Your task to perform on an android device: install app "eBay: The shopping marketplace" Image 0: 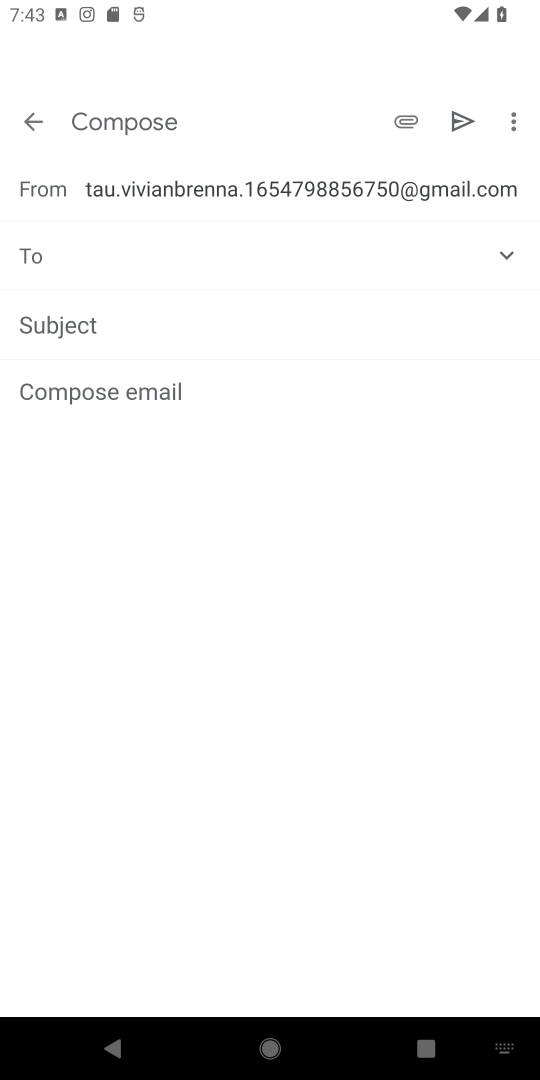
Step 0: press home button
Your task to perform on an android device: install app "eBay: The shopping marketplace" Image 1: 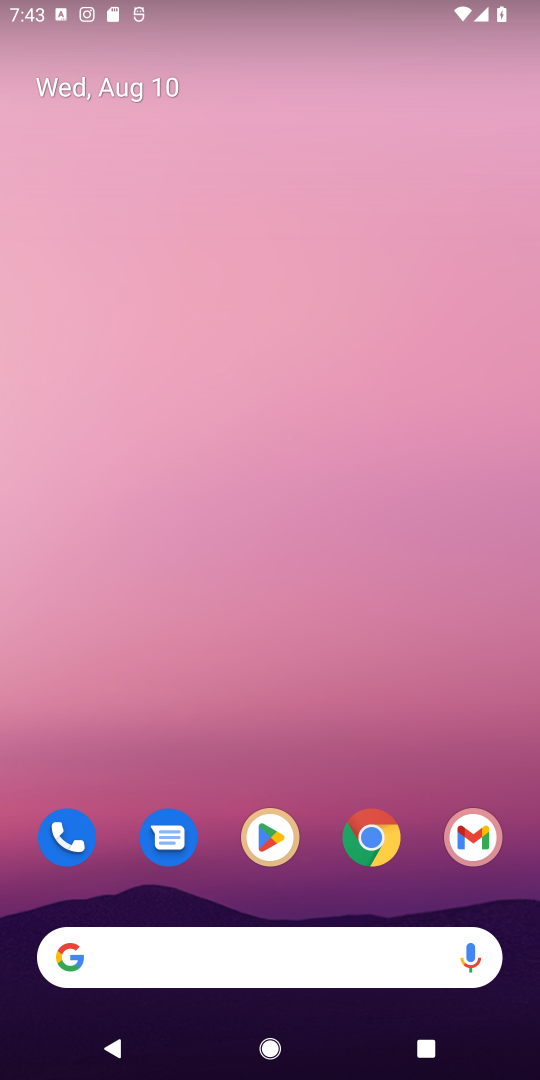
Step 1: click (277, 841)
Your task to perform on an android device: install app "eBay: The shopping marketplace" Image 2: 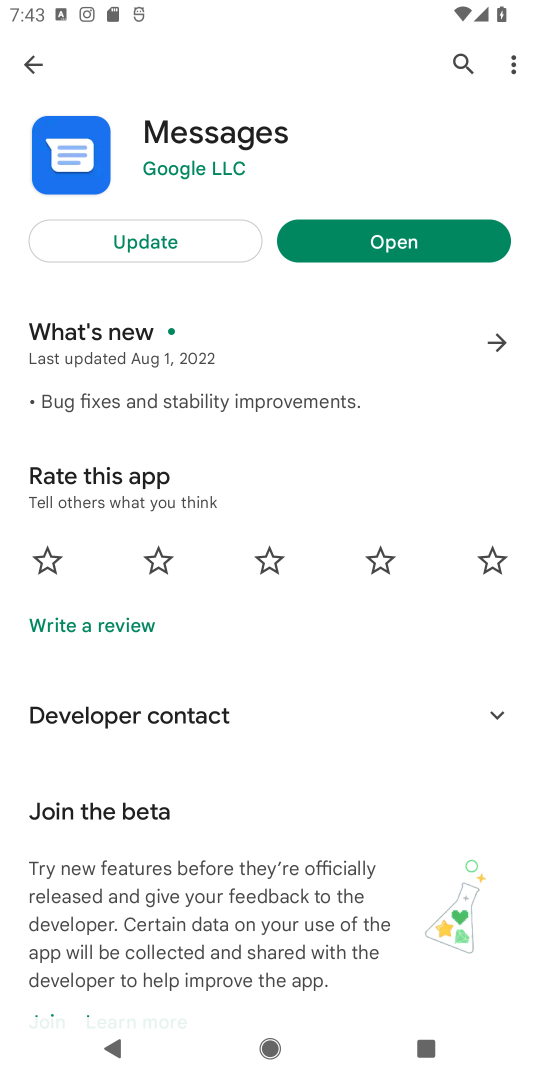
Step 2: click (461, 57)
Your task to perform on an android device: install app "eBay: The shopping marketplace" Image 3: 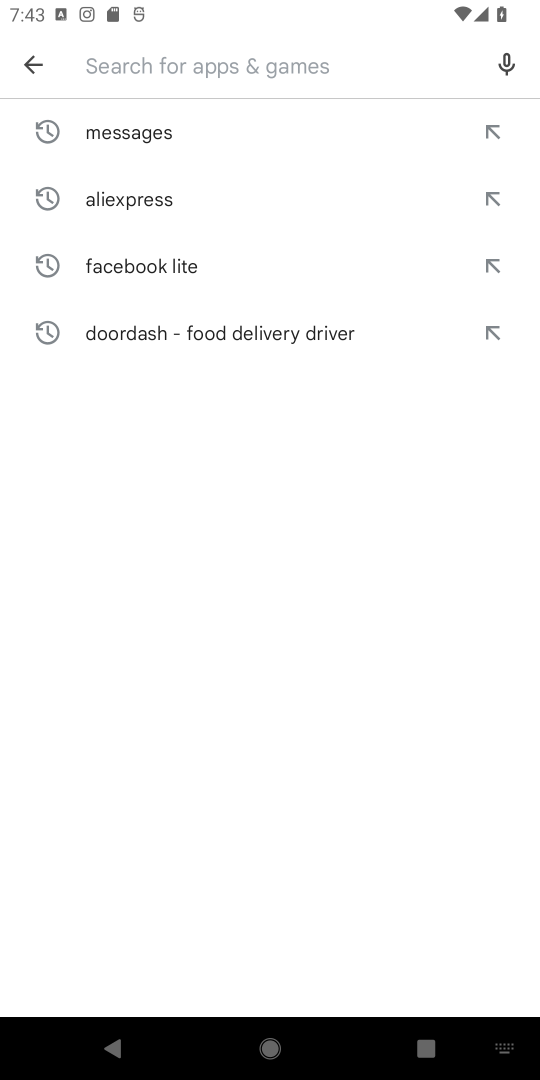
Step 3: type "eBay: The shopping marketplace"
Your task to perform on an android device: install app "eBay: The shopping marketplace" Image 4: 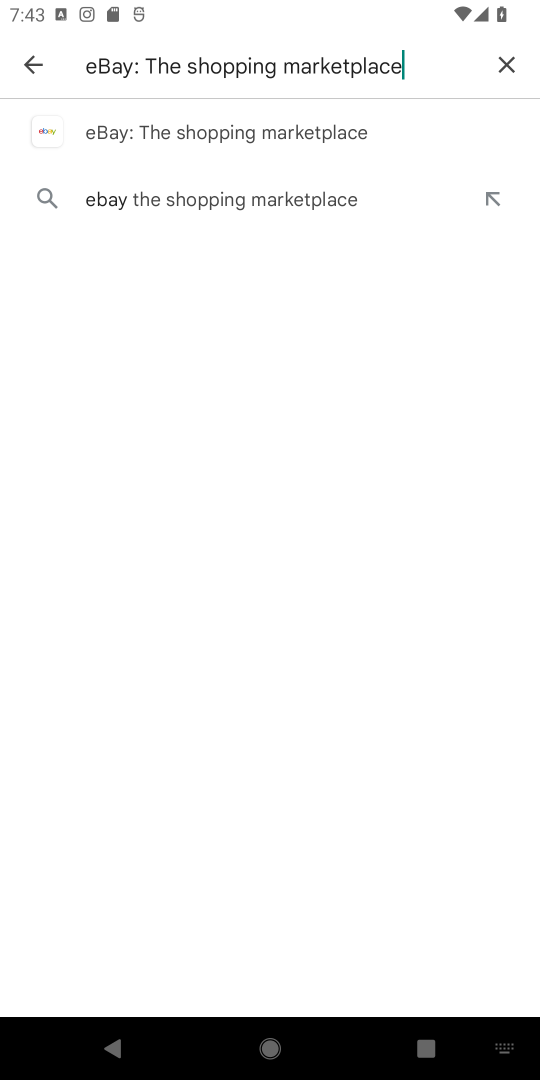
Step 4: click (178, 131)
Your task to perform on an android device: install app "eBay: The shopping marketplace" Image 5: 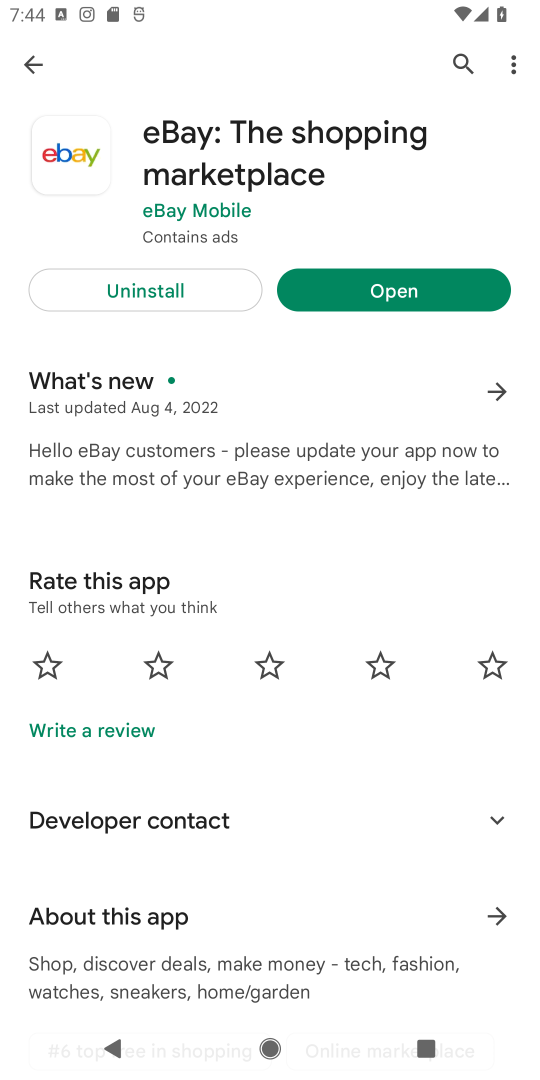
Step 5: task complete